Your task to perform on an android device: Open Reddit.com Image 0: 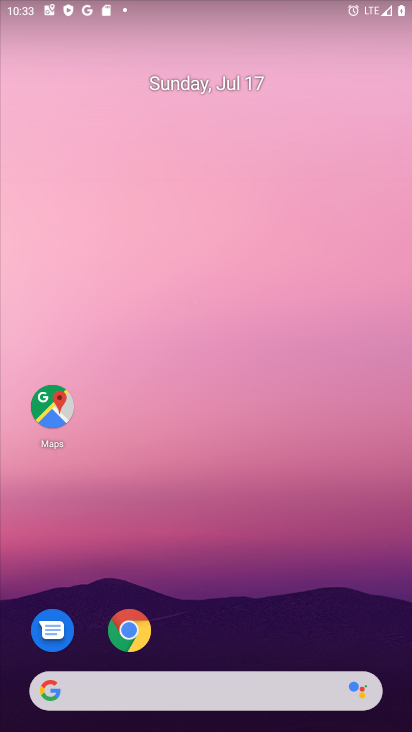
Step 0: click (129, 624)
Your task to perform on an android device: Open Reddit.com Image 1: 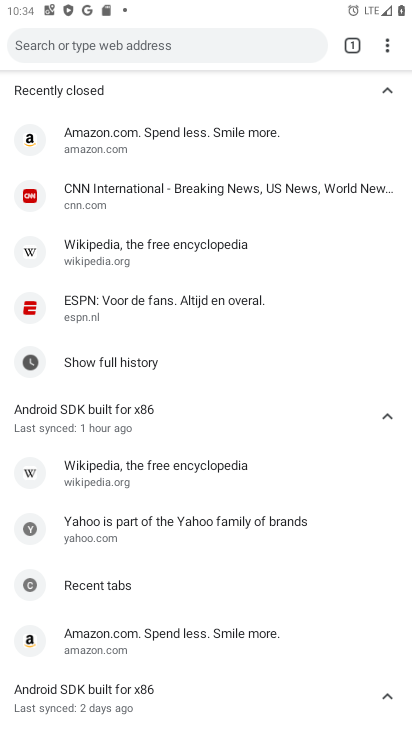
Step 1: click (143, 38)
Your task to perform on an android device: Open Reddit.com Image 2: 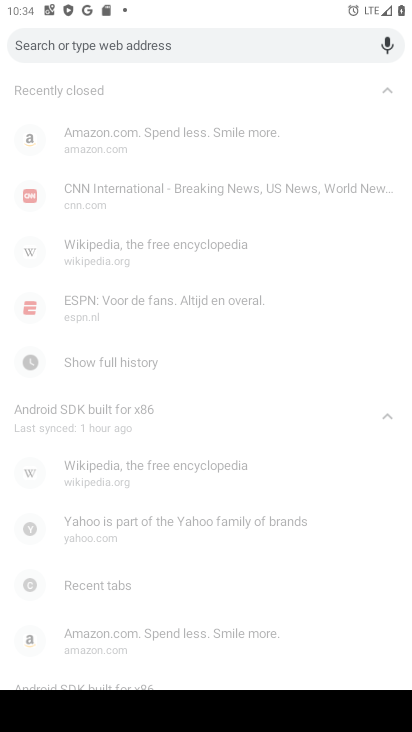
Step 2: type "reddit"
Your task to perform on an android device: Open Reddit.com Image 3: 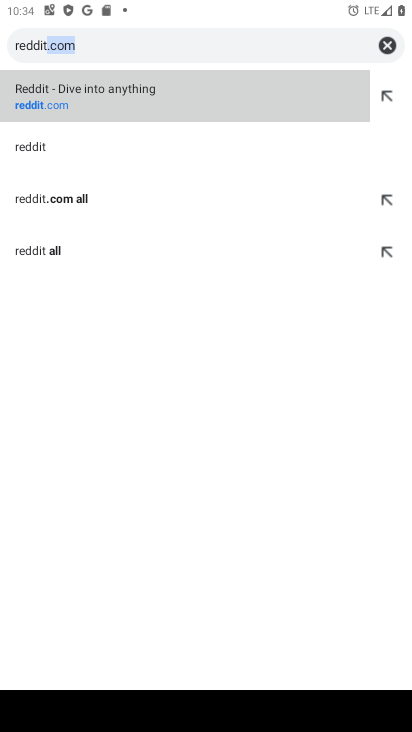
Step 3: click (87, 103)
Your task to perform on an android device: Open Reddit.com Image 4: 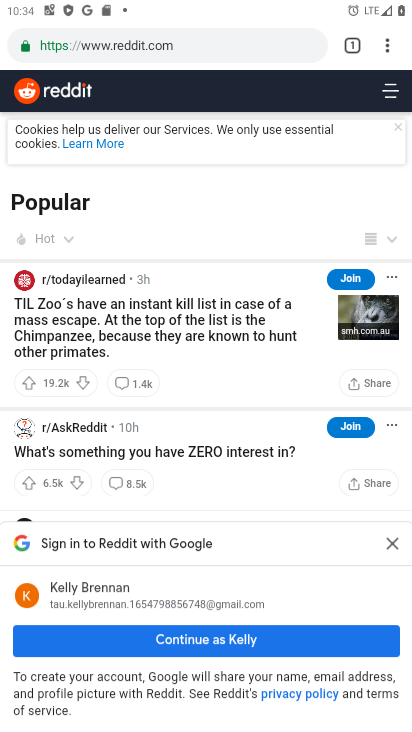
Step 4: task complete